Your task to perform on an android device: turn off picture-in-picture Image 0: 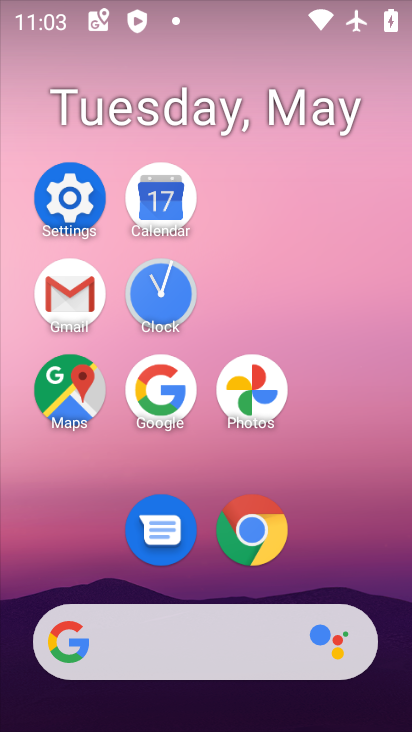
Step 0: click (253, 527)
Your task to perform on an android device: turn off picture-in-picture Image 1: 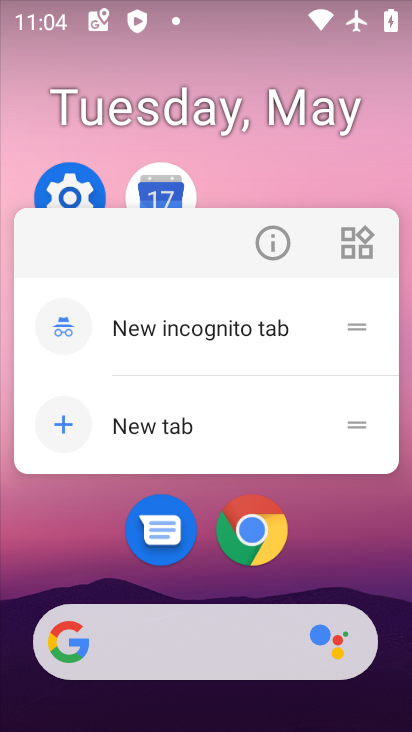
Step 1: click (265, 244)
Your task to perform on an android device: turn off picture-in-picture Image 2: 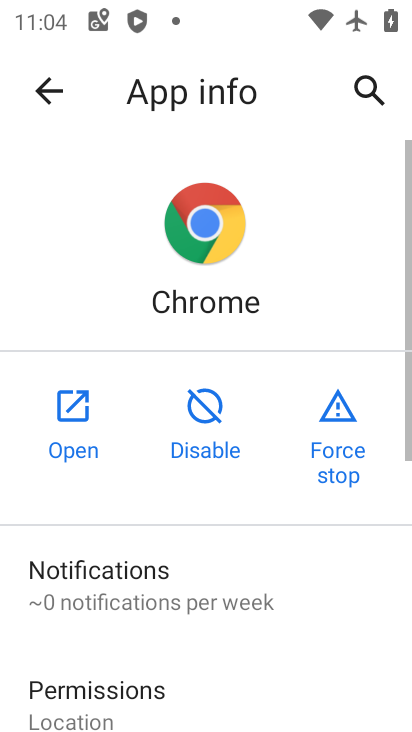
Step 2: drag from (257, 627) to (301, 222)
Your task to perform on an android device: turn off picture-in-picture Image 3: 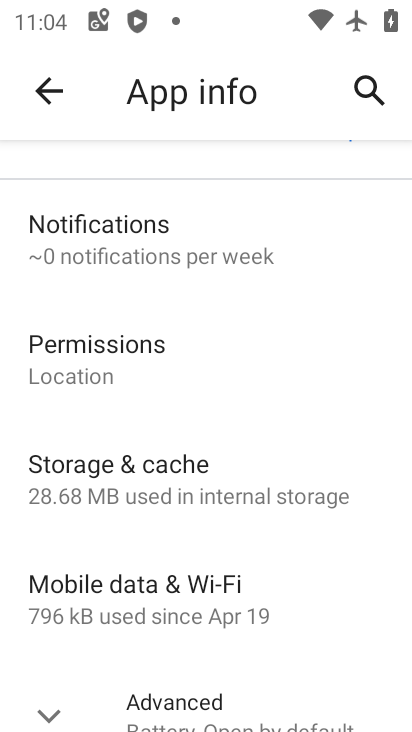
Step 3: drag from (257, 602) to (276, 225)
Your task to perform on an android device: turn off picture-in-picture Image 4: 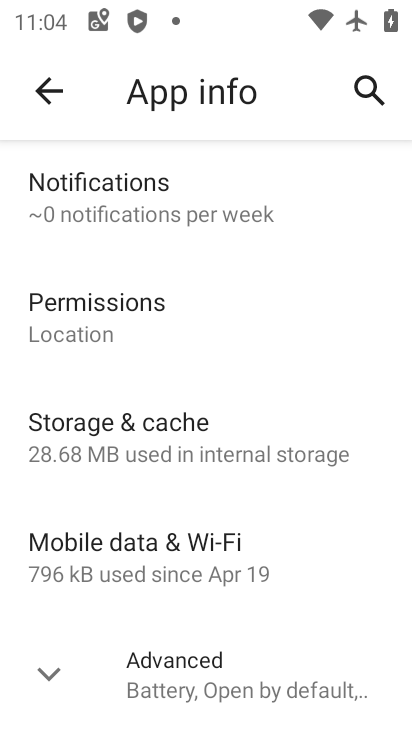
Step 4: click (201, 660)
Your task to perform on an android device: turn off picture-in-picture Image 5: 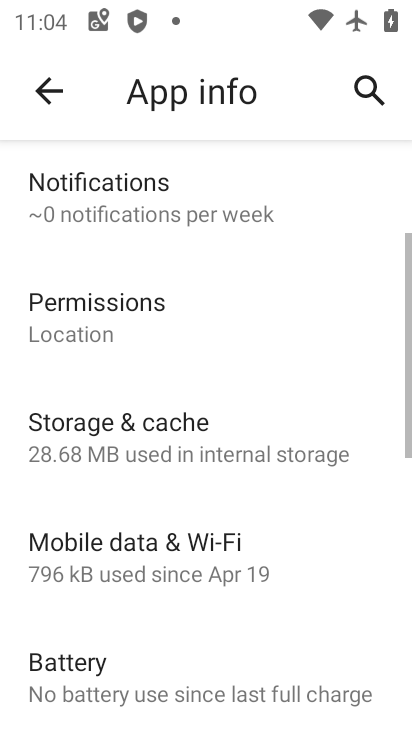
Step 5: drag from (280, 602) to (260, 153)
Your task to perform on an android device: turn off picture-in-picture Image 6: 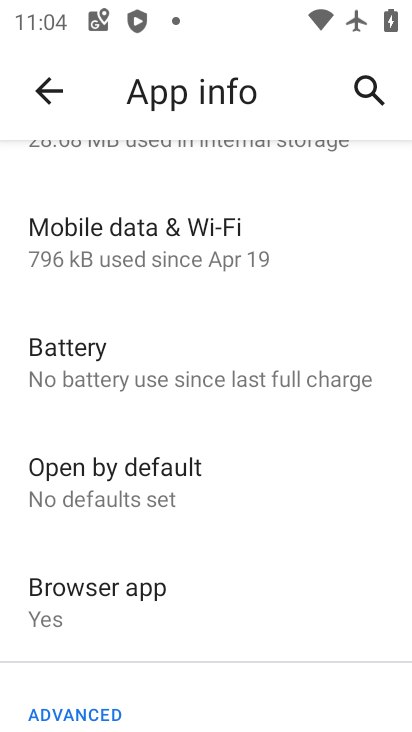
Step 6: drag from (239, 510) to (200, 174)
Your task to perform on an android device: turn off picture-in-picture Image 7: 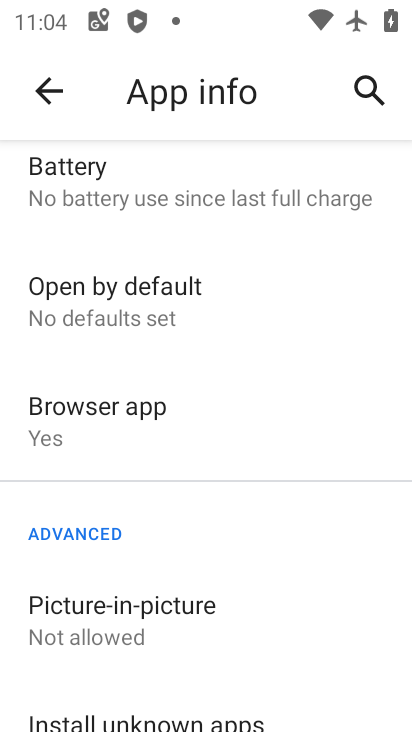
Step 7: click (200, 635)
Your task to perform on an android device: turn off picture-in-picture Image 8: 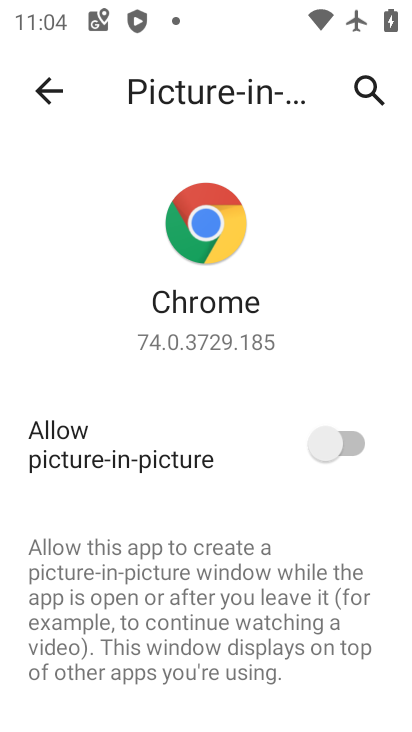
Step 8: task complete